Your task to perform on an android device: Open network settings Image 0: 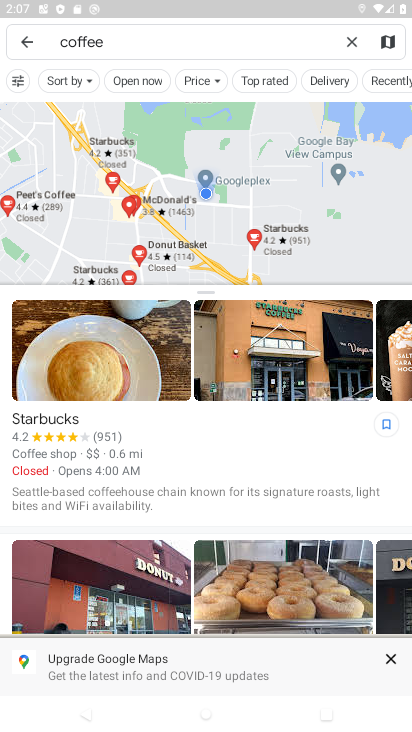
Step 0: press home button
Your task to perform on an android device: Open network settings Image 1: 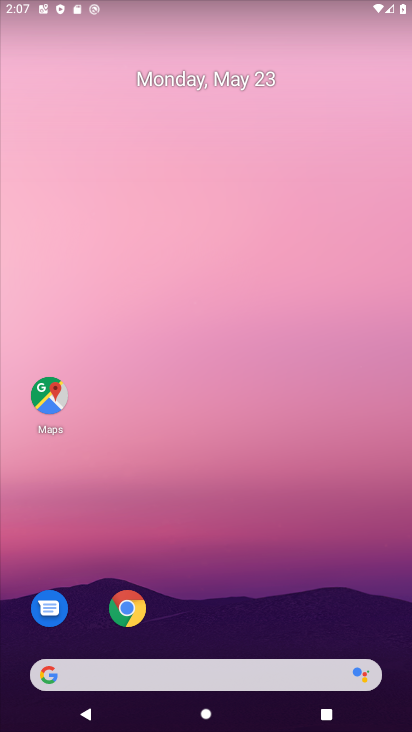
Step 1: drag from (212, 637) to (234, 4)
Your task to perform on an android device: Open network settings Image 2: 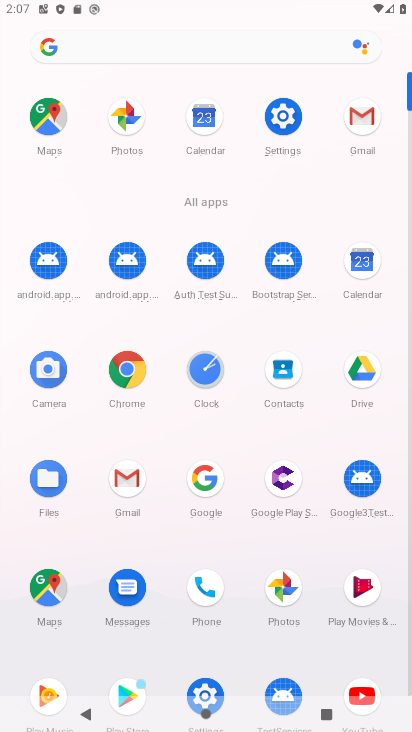
Step 2: click (286, 143)
Your task to perform on an android device: Open network settings Image 3: 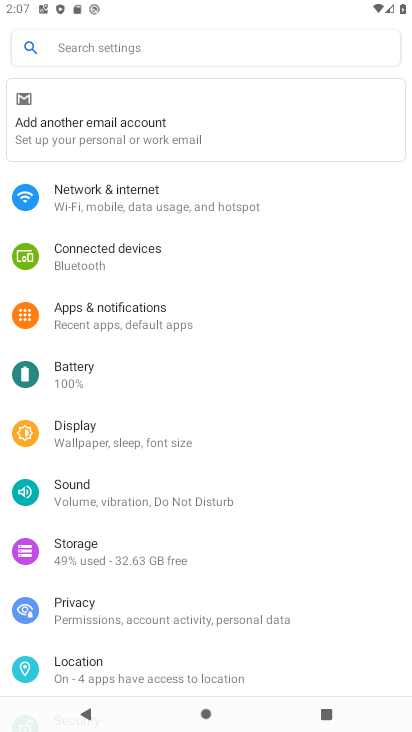
Step 3: click (170, 204)
Your task to perform on an android device: Open network settings Image 4: 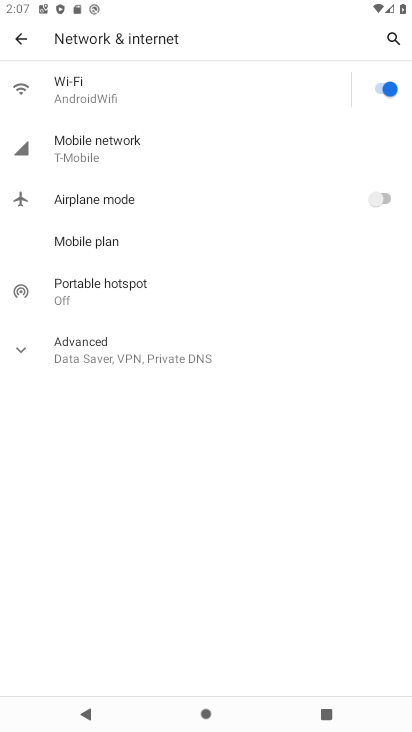
Step 4: click (67, 109)
Your task to perform on an android device: Open network settings Image 5: 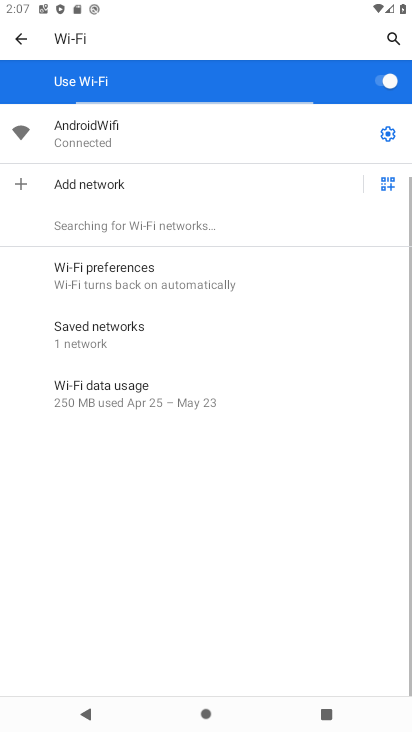
Step 5: click (15, 38)
Your task to perform on an android device: Open network settings Image 6: 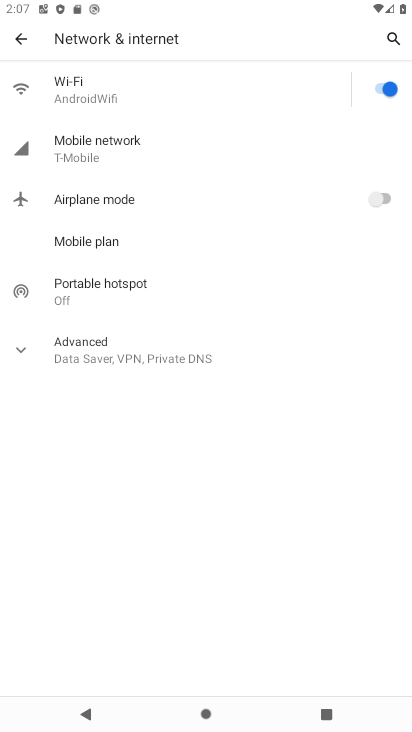
Step 6: click (79, 149)
Your task to perform on an android device: Open network settings Image 7: 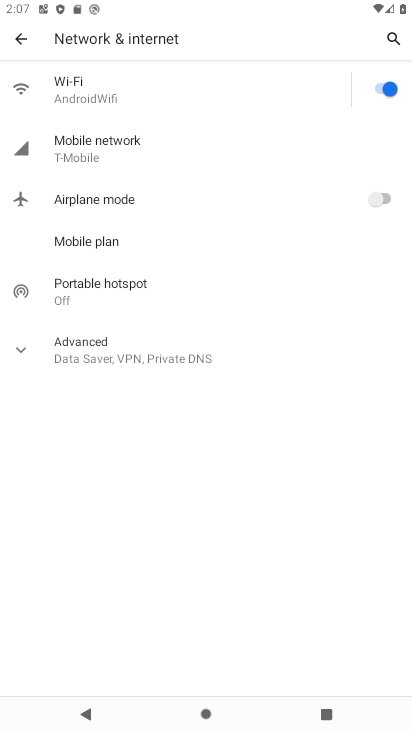
Step 7: task complete